Your task to perform on an android device: delete a single message in the gmail app Image 0: 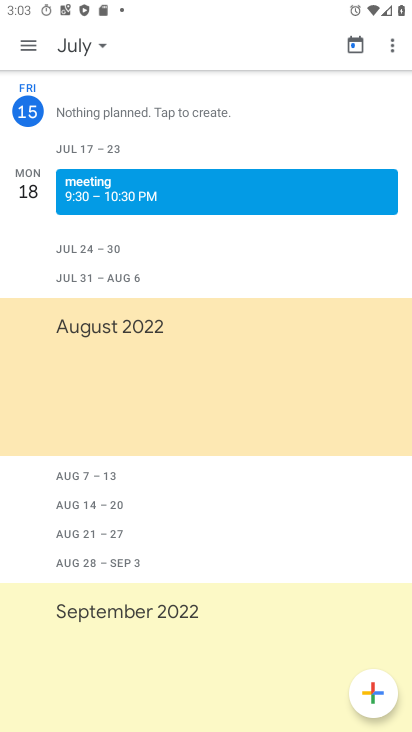
Step 0: press home button
Your task to perform on an android device: delete a single message in the gmail app Image 1: 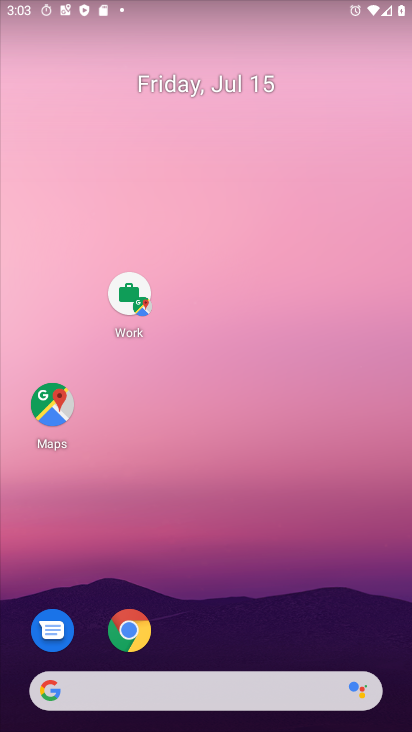
Step 1: drag from (193, 639) to (199, 175)
Your task to perform on an android device: delete a single message in the gmail app Image 2: 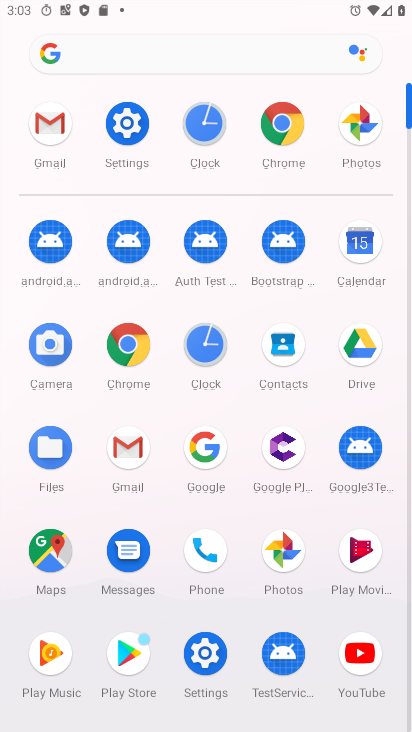
Step 2: click (62, 135)
Your task to perform on an android device: delete a single message in the gmail app Image 3: 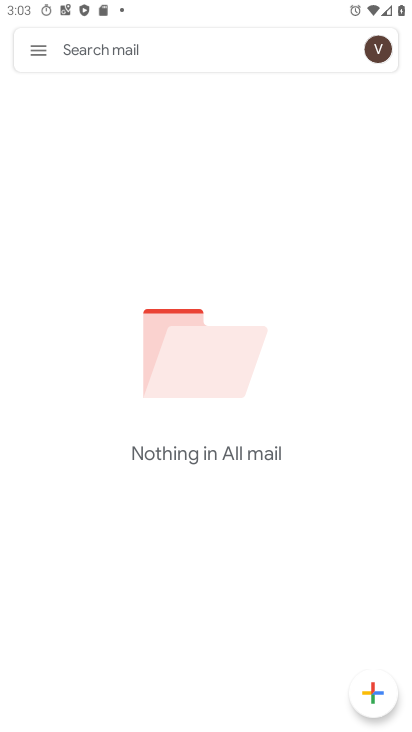
Step 3: task complete